Your task to perform on an android device: turn off location history Image 0: 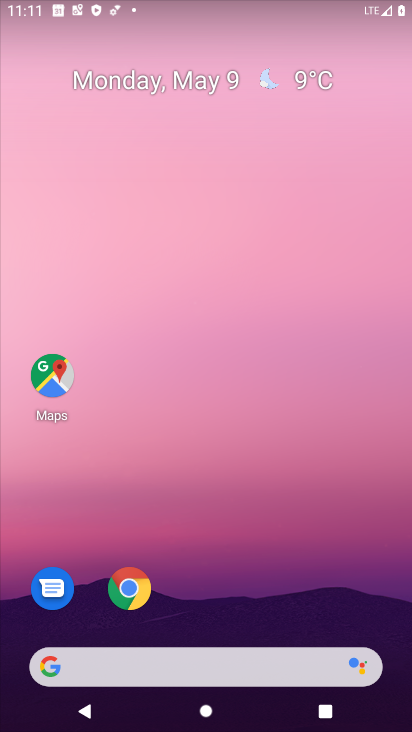
Step 0: press home button
Your task to perform on an android device: turn off location history Image 1: 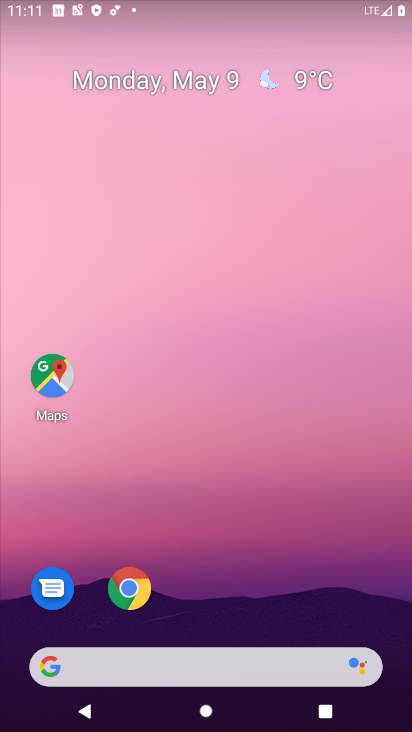
Step 1: drag from (159, 663) to (385, 155)
Your task to perform on an android device: turn off location history Image 2: 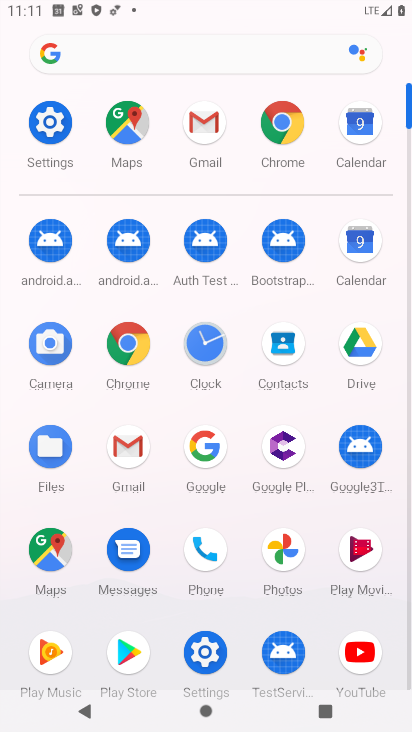
Step 2: click (133, 132)
Your task to perform on an android device: turn off location history Image 3: 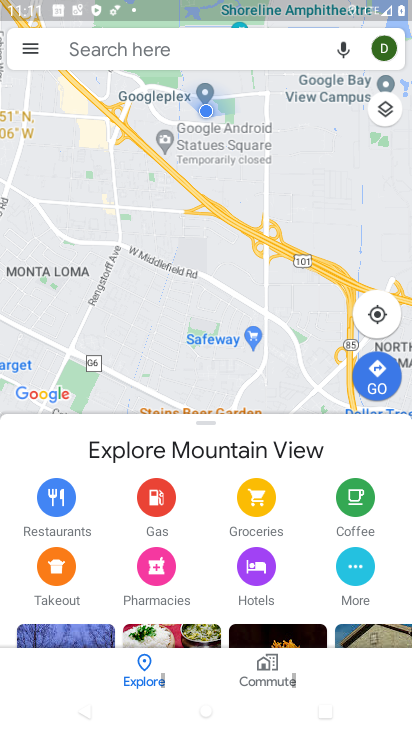
Step 3: click (22, 45)
Your task to perform on an android device: turn off location history Image 4: 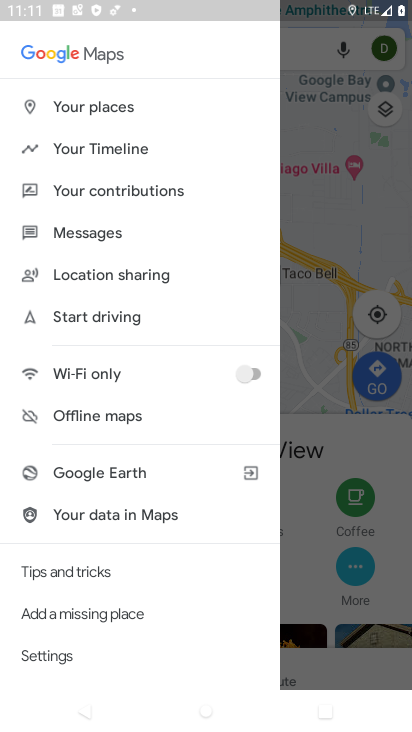
Step 4: click (150, 153)
Your task to perform on an android device: turn off location history Image 5: 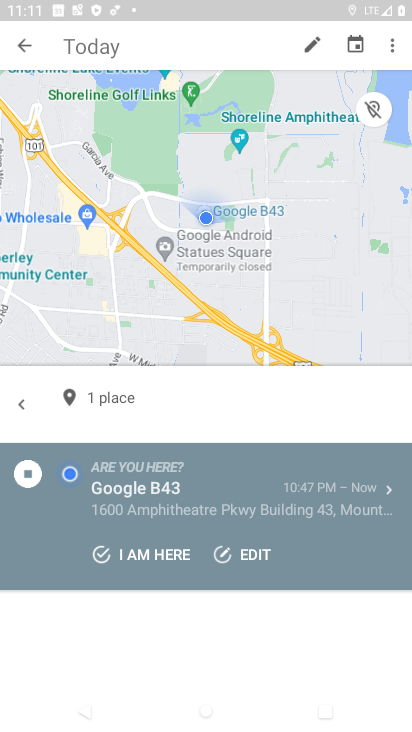
Step 5: click (392, 48)
Your task to perform on an android device: turn off location history Image 6: 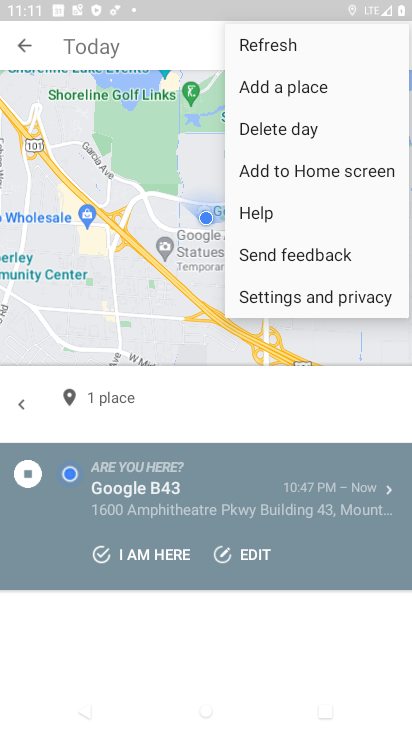
Step 6: click (283, 298)
Your task to perform on an android device: turn off location history Image 7: 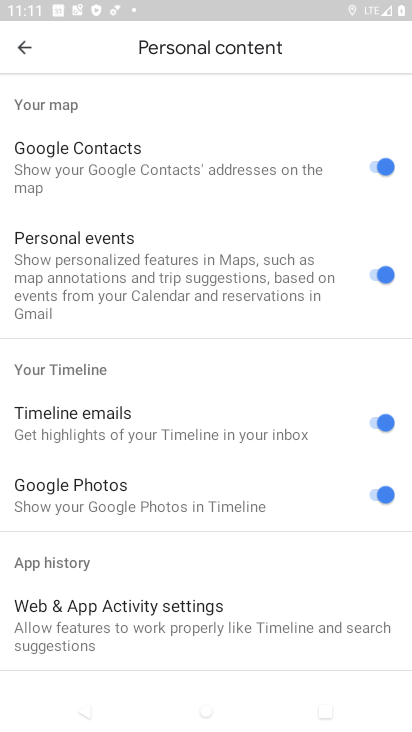
Step 7: drag from (147, 568) to (263, 118)
Your task to perform on an android device: turn off location history Image 8: 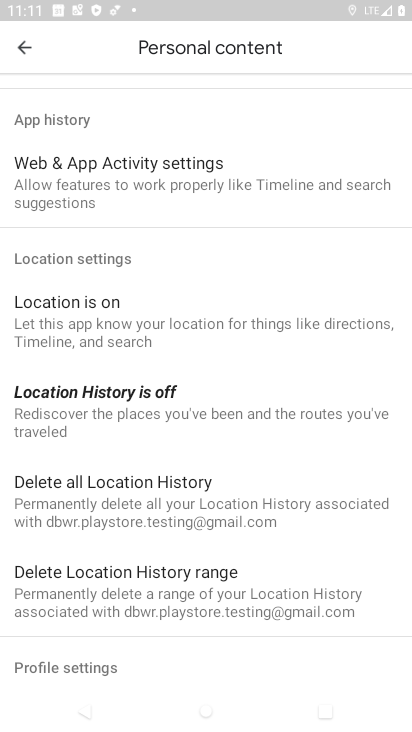
Step 8: click (129, 401)
Your task to perform on an android device: turn off location history Image 9: 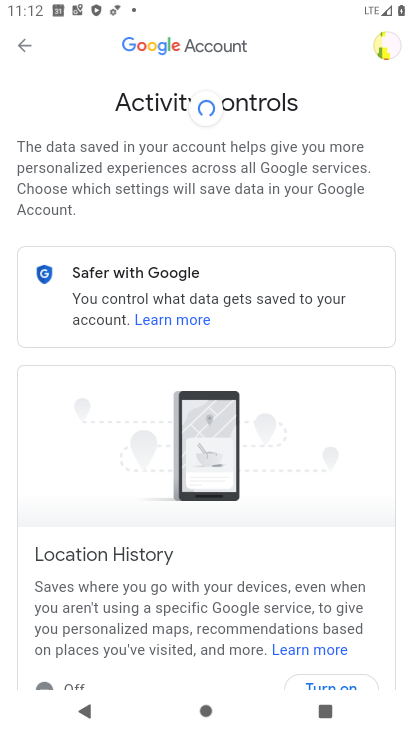
Step 9: task complete